Your task to perform on an android device: When is my next meeting? Image 0: 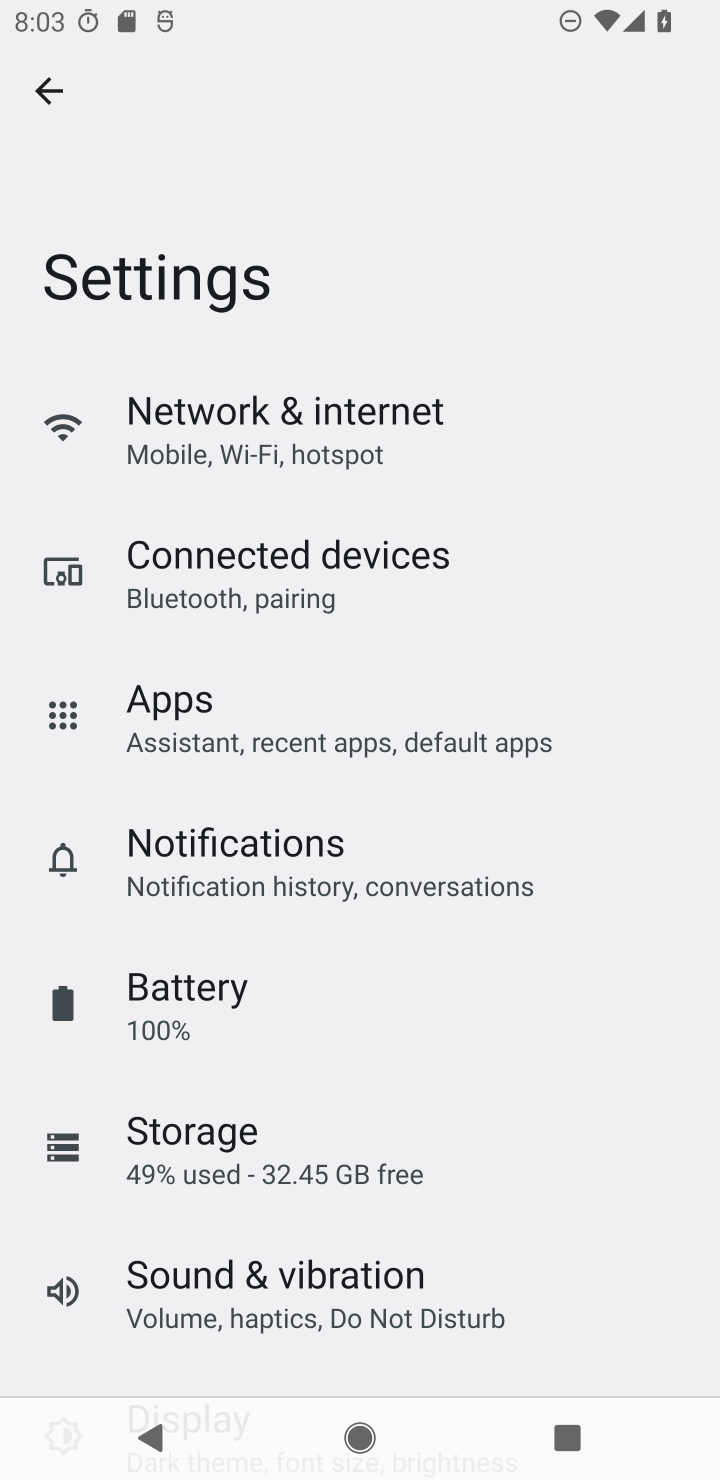
Step 0: press home button
Your task to perform on an android device: When is my next meeting? Image 1: 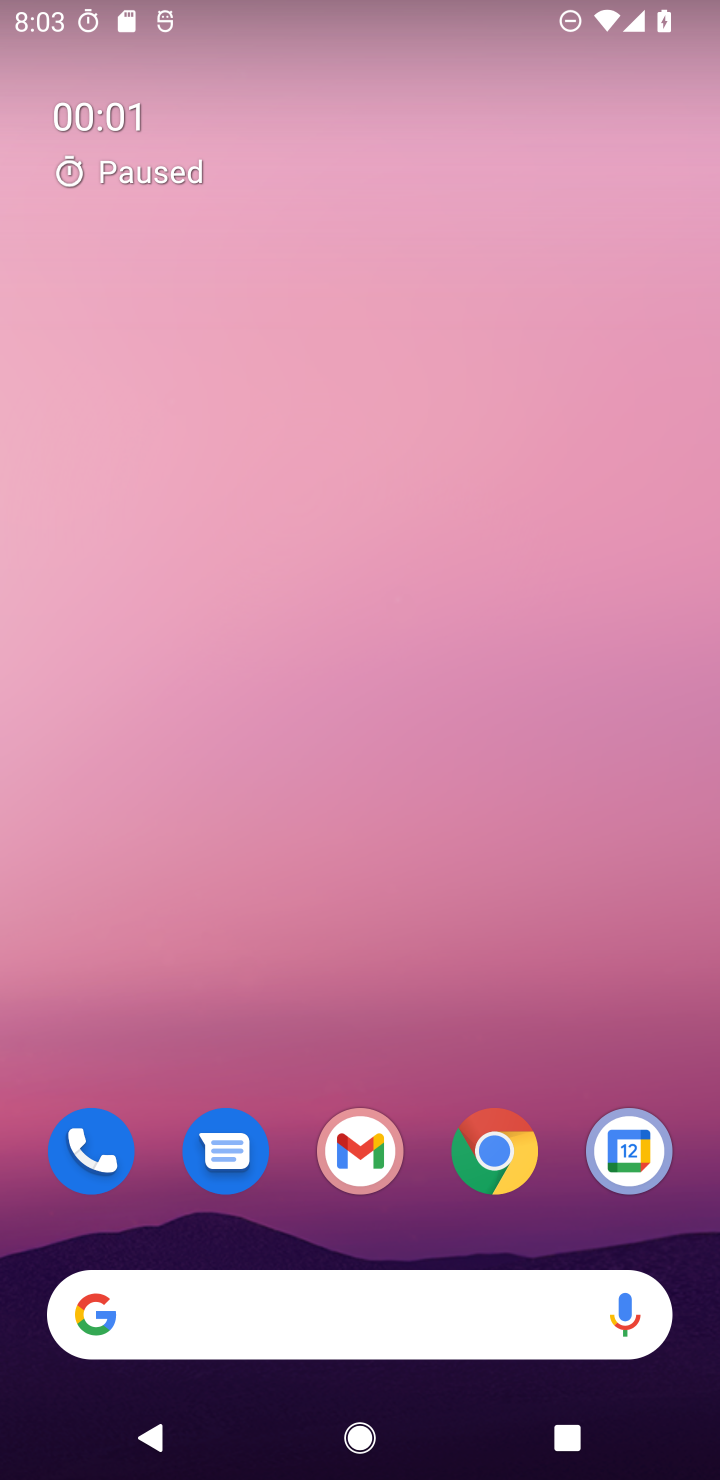
Step 1: drag from (499, 1014) to (237, 23)
Your task to perform on an android device: When is my next meeting? Image 2: 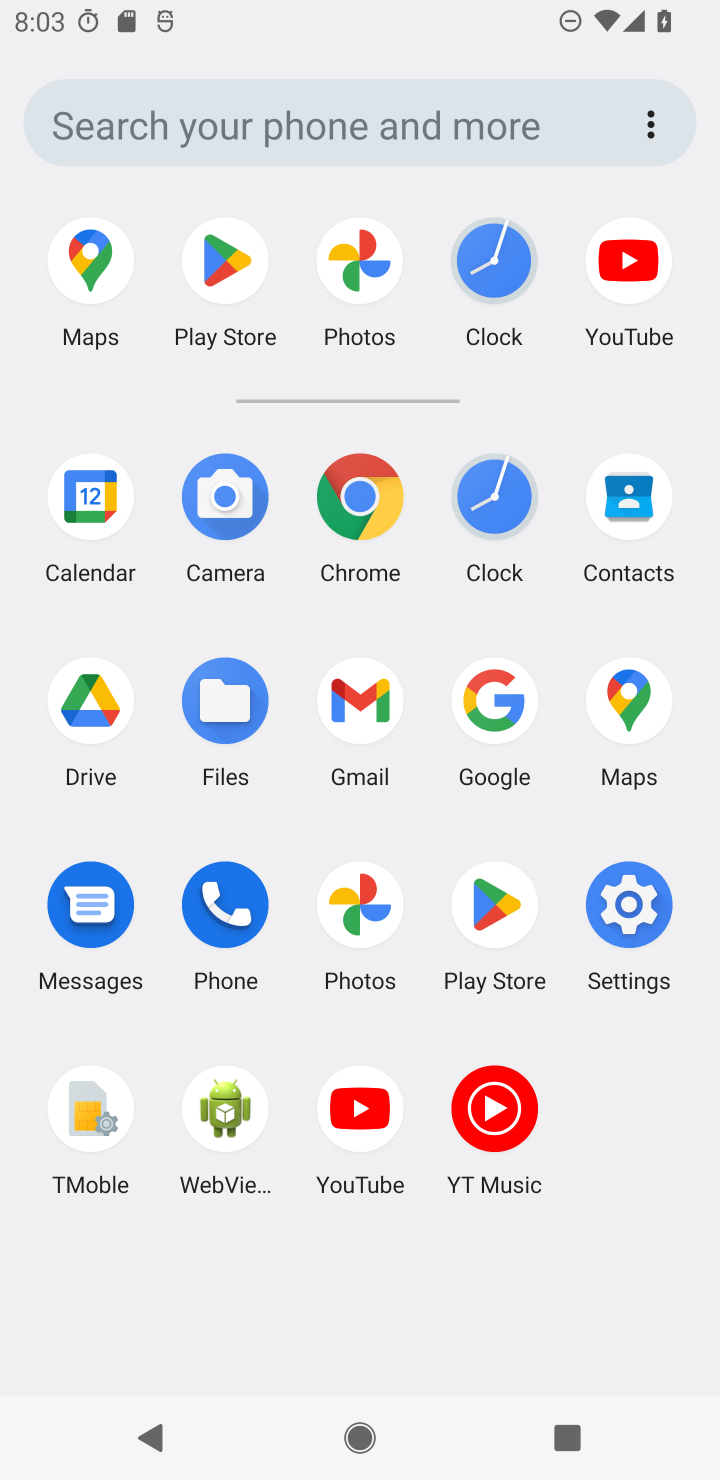
Step 2: click (93, 512)
Your task to perform on an android device: When is my next meeting? Image 3: 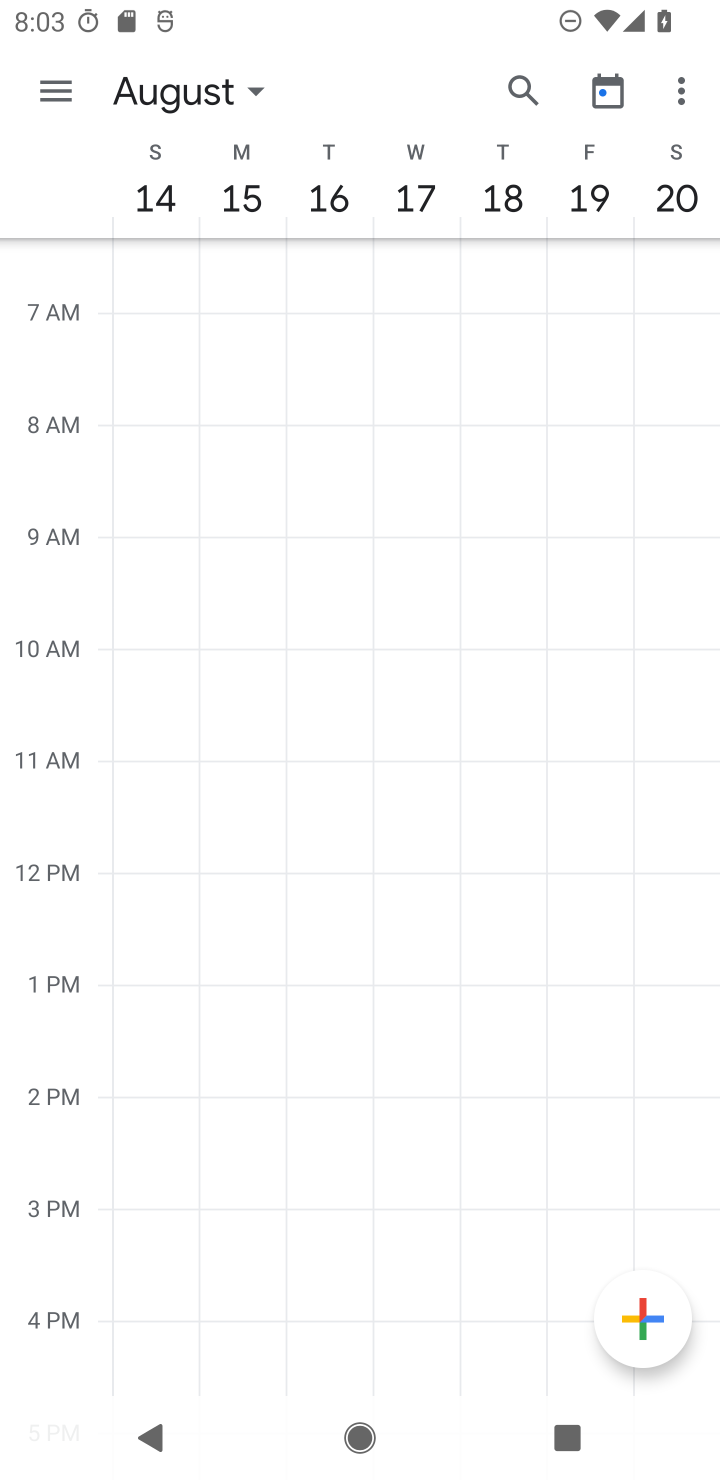
Step 3: click (188, 93)
Your task to perform on an android device: When is my next meeting? Image 4: 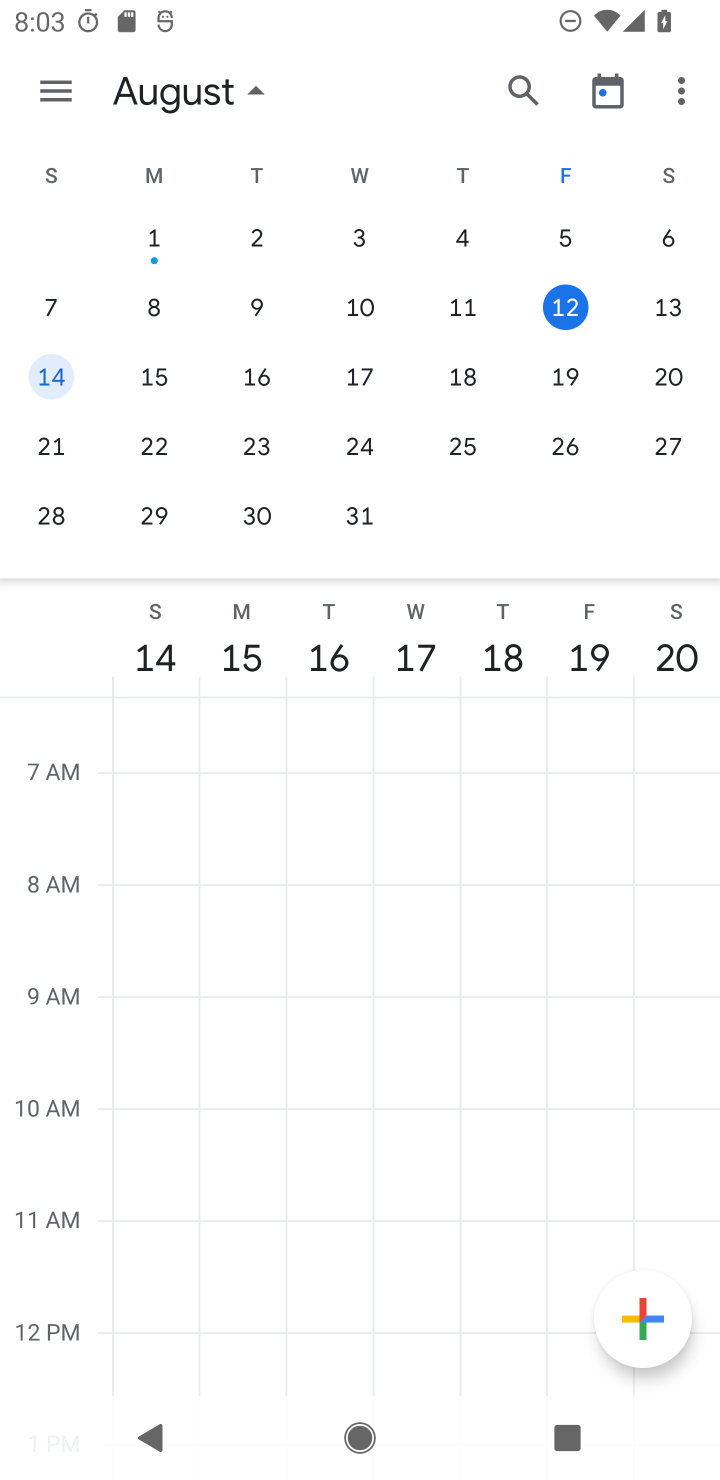
Step 4: click (560, 293)
Your task to perform on an android device: When is my next meeting? Image 5: 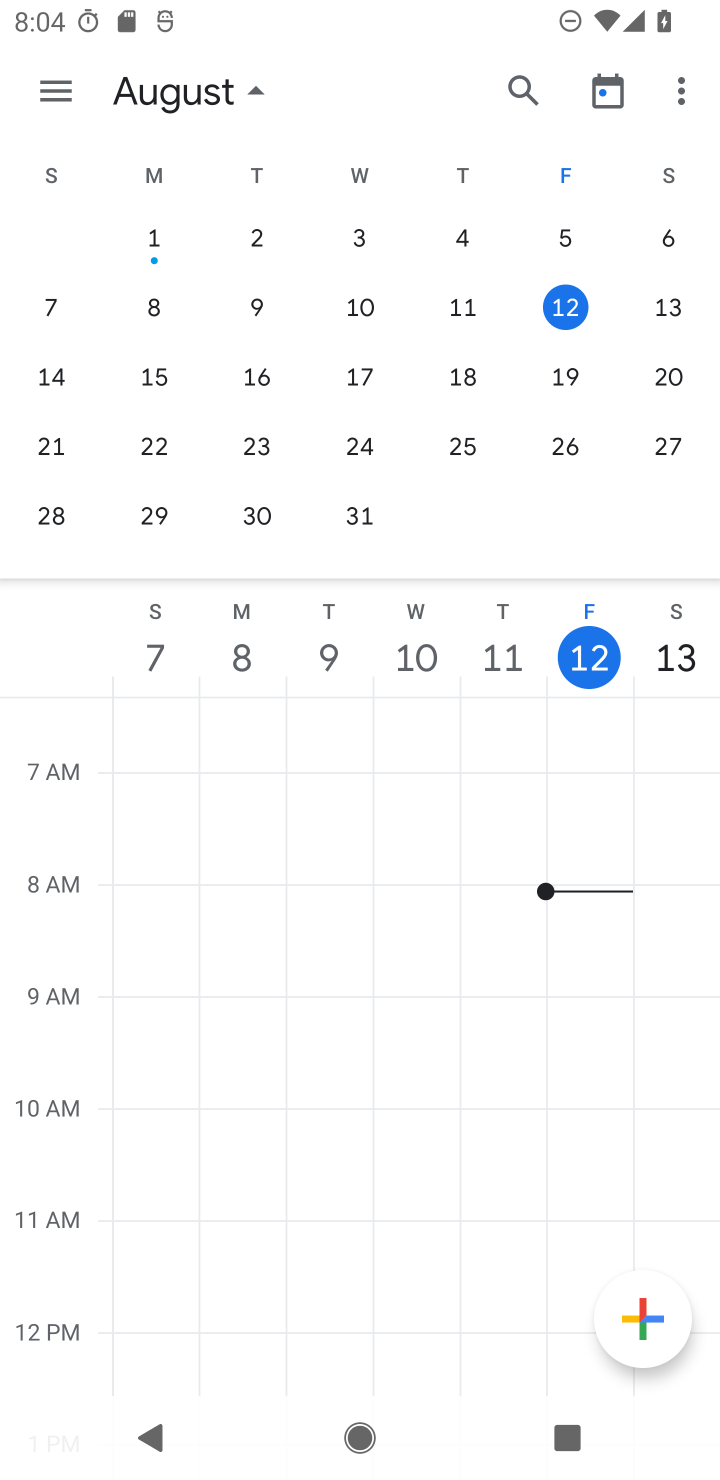
Step 5: click (50, 72)
Your task to perform on an android device: When is my next meeting? Image 6: 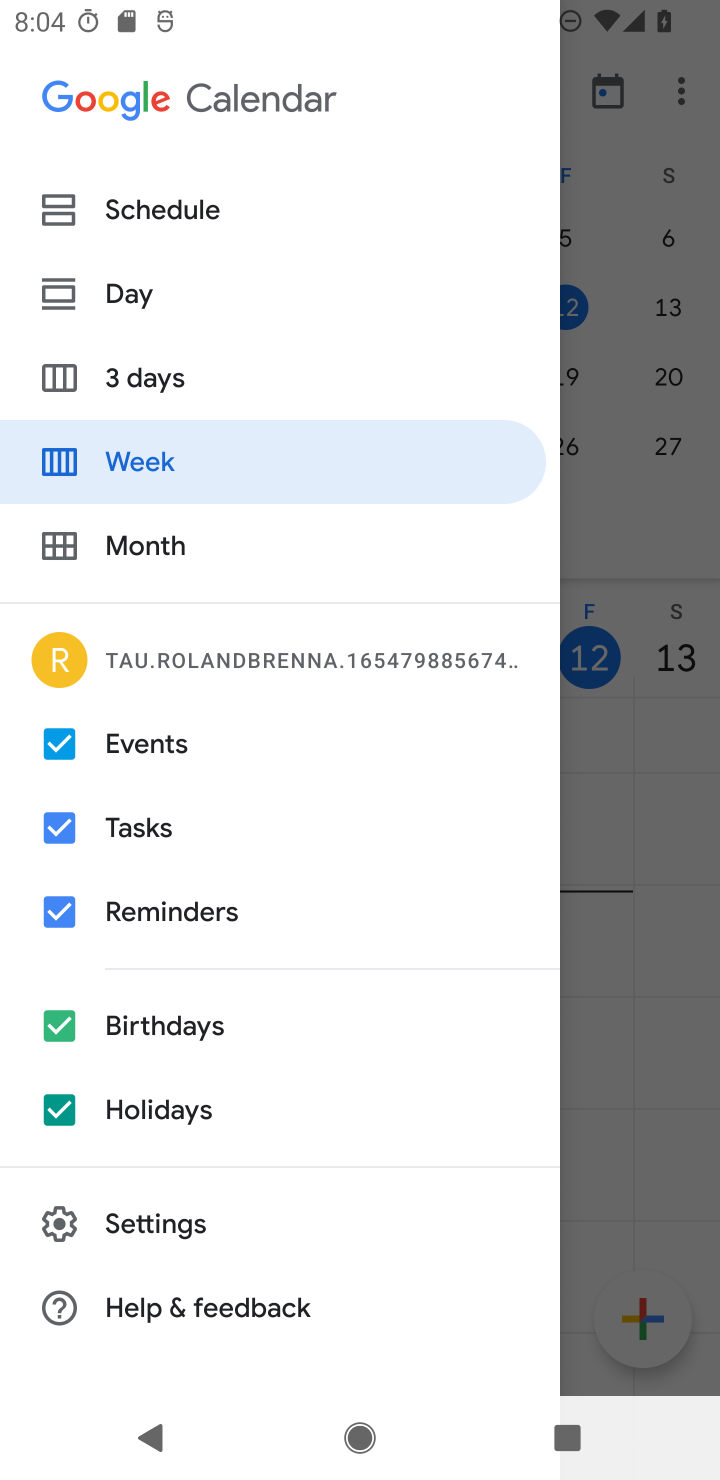
Step 6: click (141, 388)
Your task to perform on an android device: When is my next meeting? Image 7: 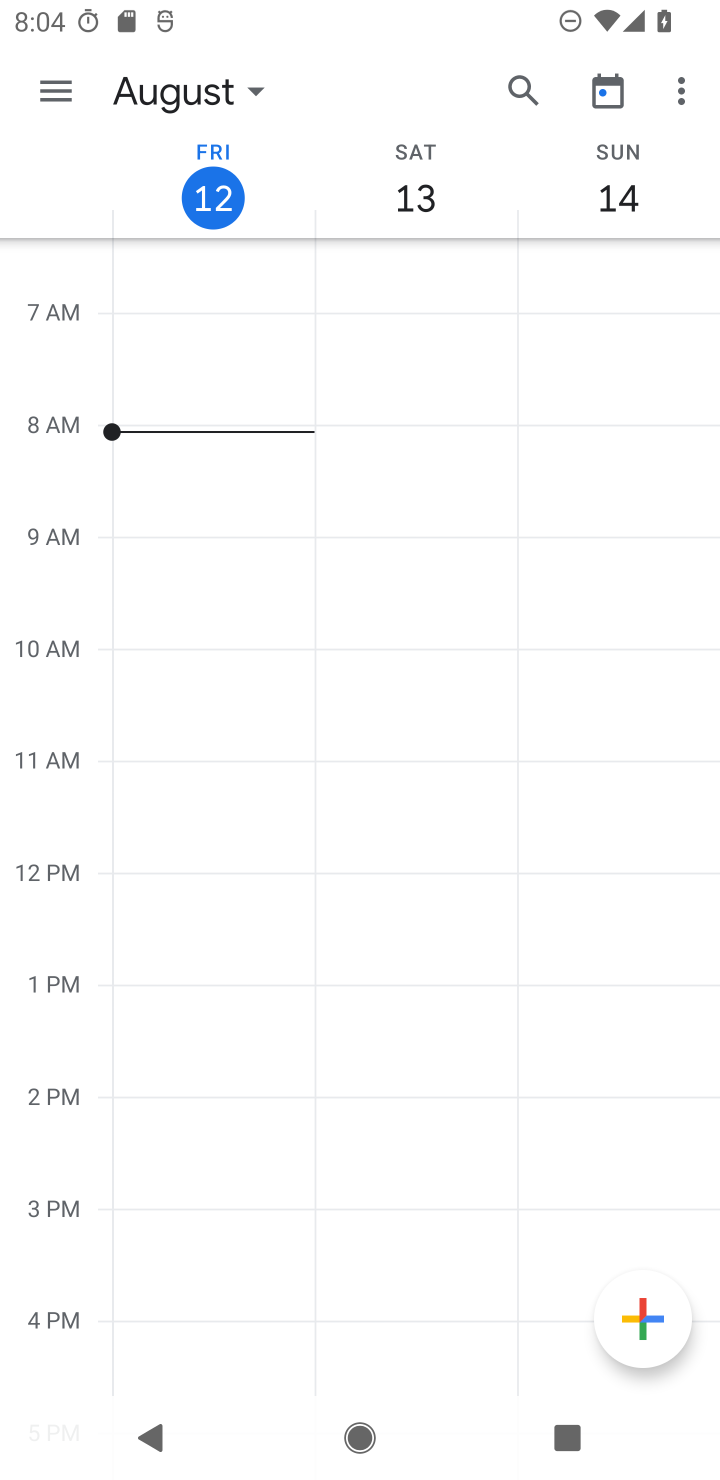
Step 7: task complete